Your task to perform on an android device: show emergency info Image 0: 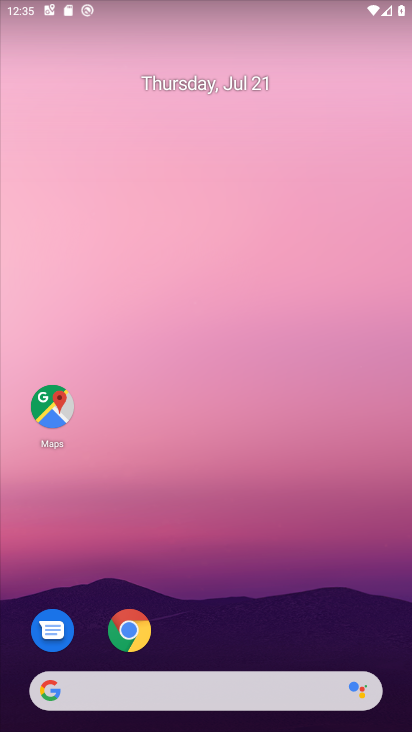
Step 0: drag from (177, 633) to (230, 149)
Your task to perform on an android device: show emergency info Image 1: 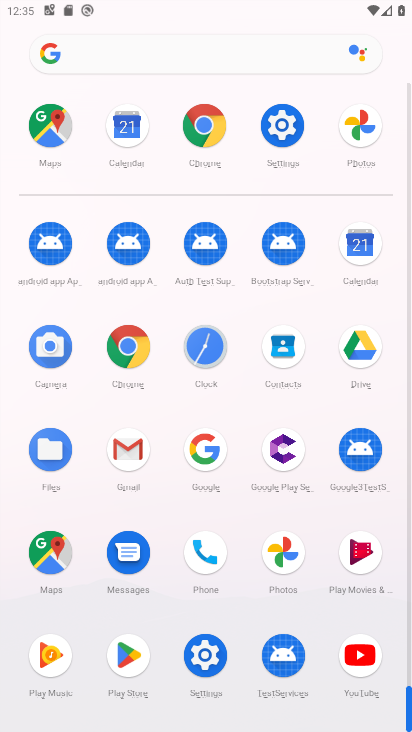
Step 1: click (201, 666)
Your task to perform on an android device: show emergency info Image 2: 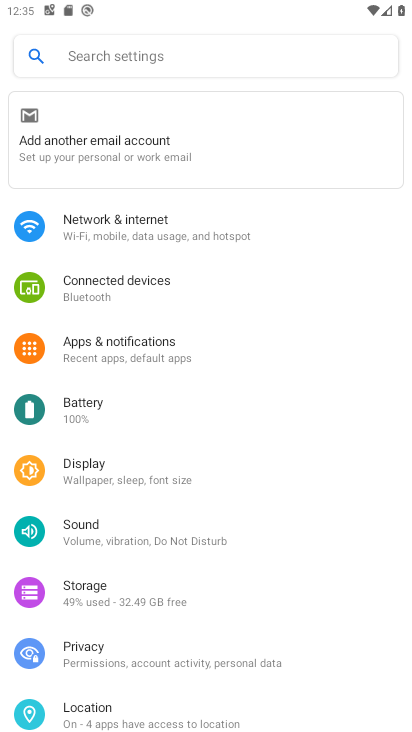
Step 2: drag from (245, 687) to (346, 10)
Your task to perform on an android device: show emergency info Image 3: 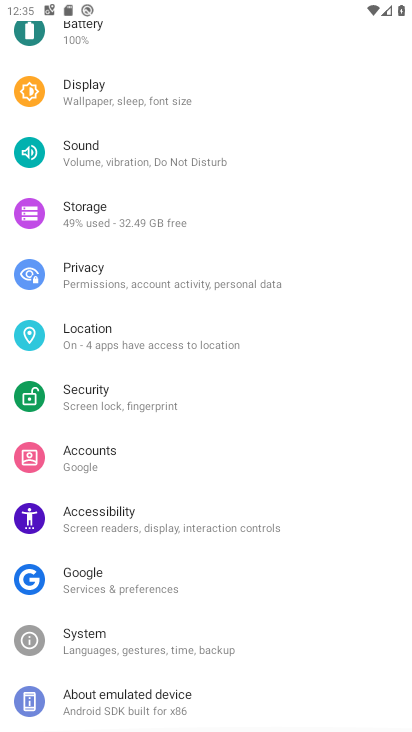
Step 3: drag from (234, 595) to (240, 20)
Your task to perform on an android device: show emergency info Image 4: 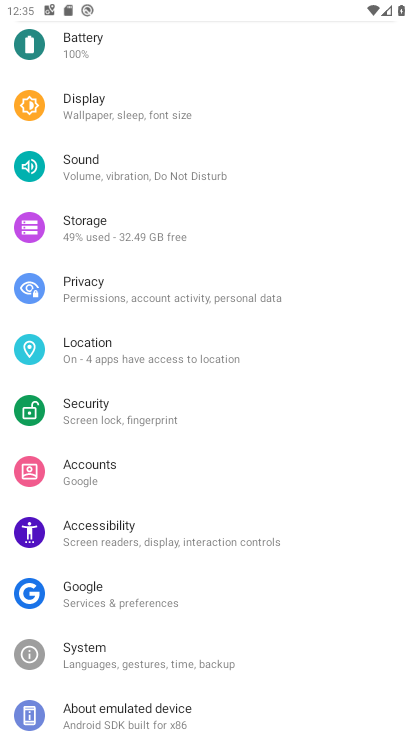
Step 4: click (148, 702)
Your task to perform on an android device: show emergency info Image 5: 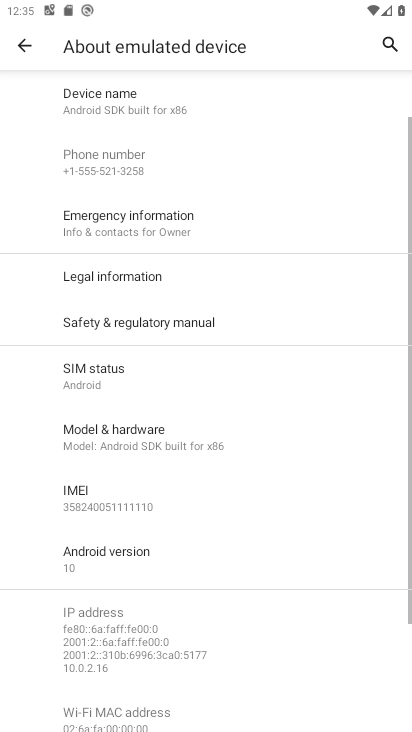
Step 5: click (169, 224)
Your task to perform on an android device: show emergency info Image 6: 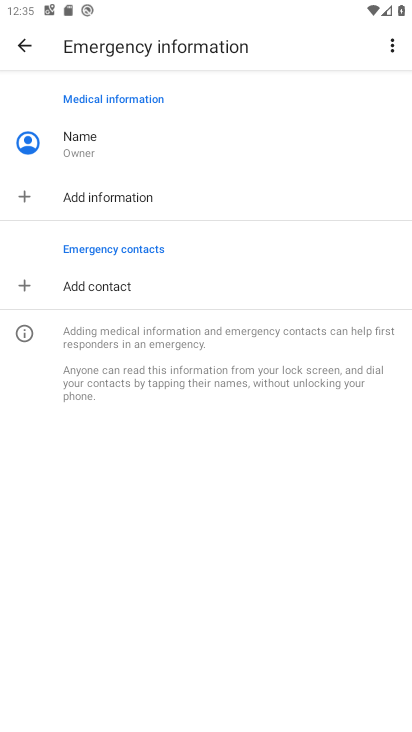
Step 6: task complete